Your task to perform on an android device: turn off improve location accuracy Image 0: 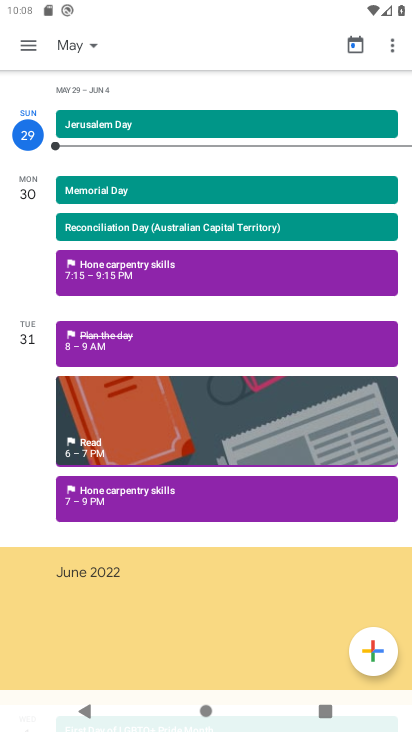
Step 0: drag from (253, 705) to (227, 195)
Your task to perform on an android device: turn off improve location accuracy Image 1: 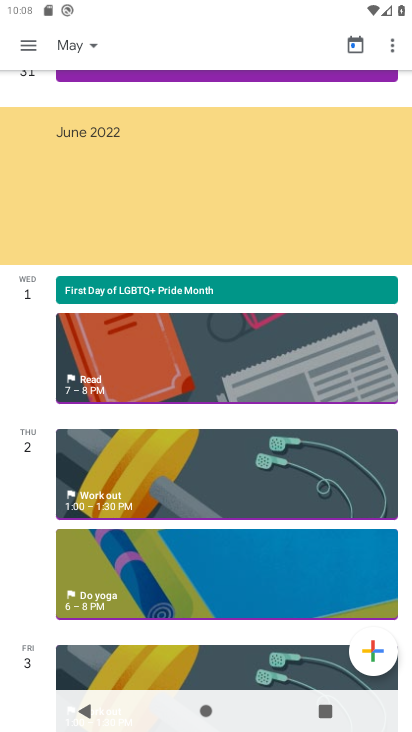
Step 1: press back button
Your task to perform on an android device: turn off improve location accuracy Image 2: 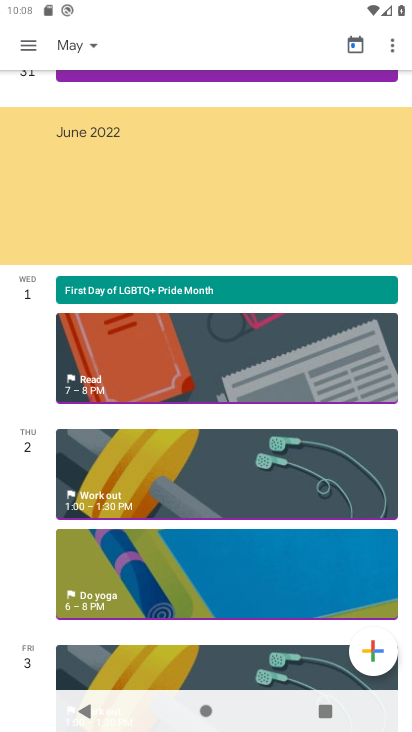
Step 2: press back button
Your task to perform on an android device: turn off improve location accuracy Image 3: 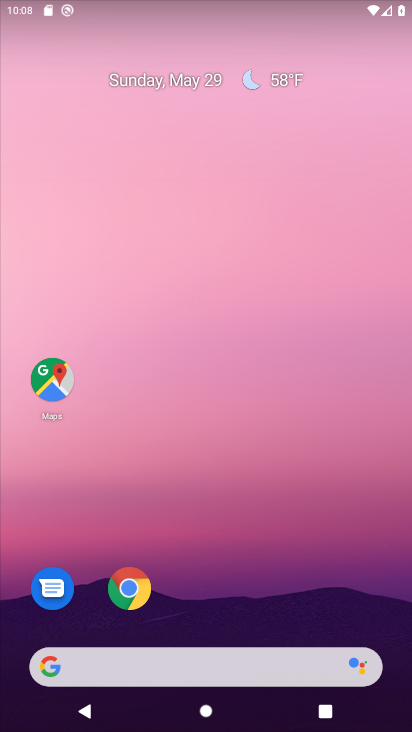
Step 3: drag from (276, 687) to (218, 243)
Your task to perform on an android device: turn off improve location accuracy Image 4: 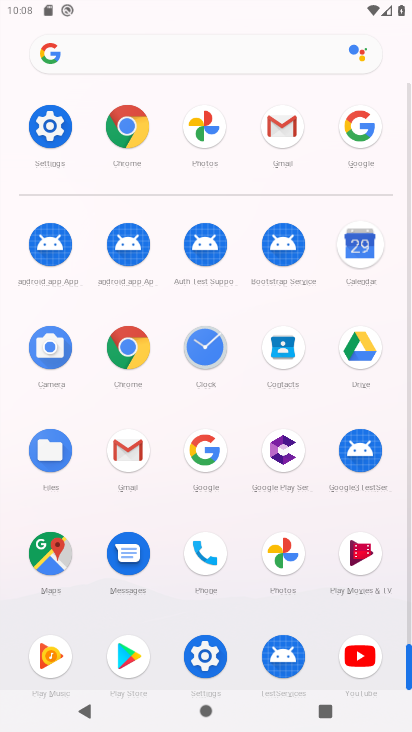
Step 4: click (49, 127)
Your task to perform on an android device: turn off improve location accuracy Image 5: 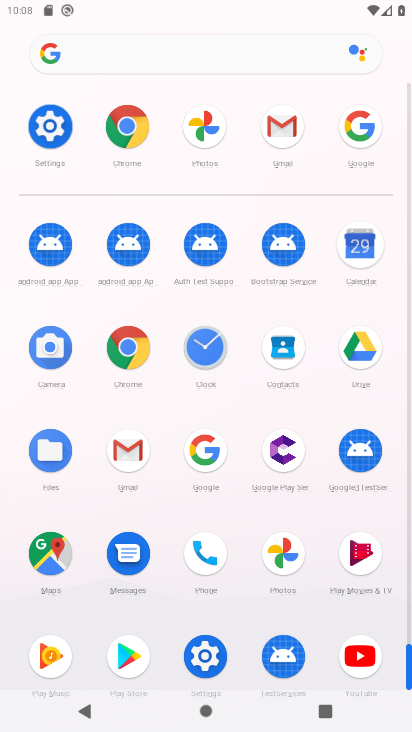
Step 5: click (63, 116)
Your task to perform on an android device: turn off improve location accuracy Image 6: 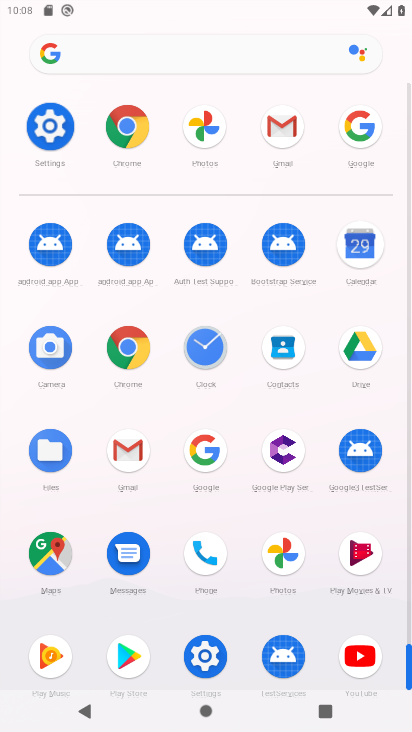
Step 6: click (63, 116)
Your task to perform on an android device: turn off improve location accuracy Image 7: 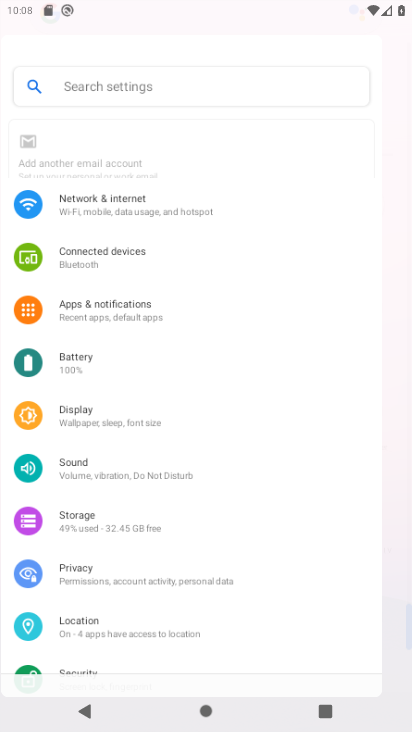
Step 7: click (63, 116)
Your task to perform on an android device: turn off improve location accuracy Image 8: 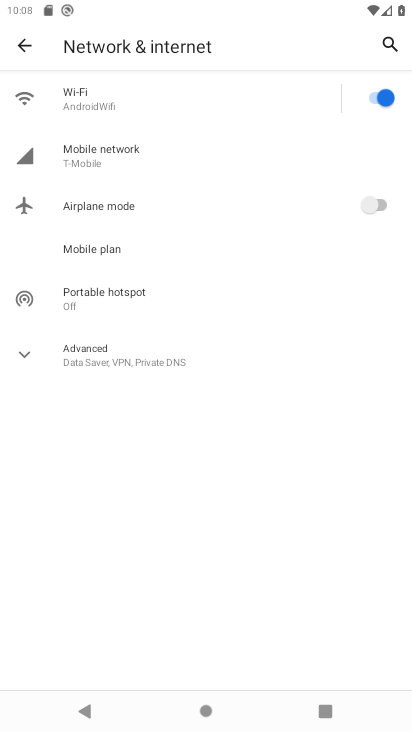
Step 8: click (17, 46)
Your task to perform on an android device: turn off improve location accuracy Image 9: 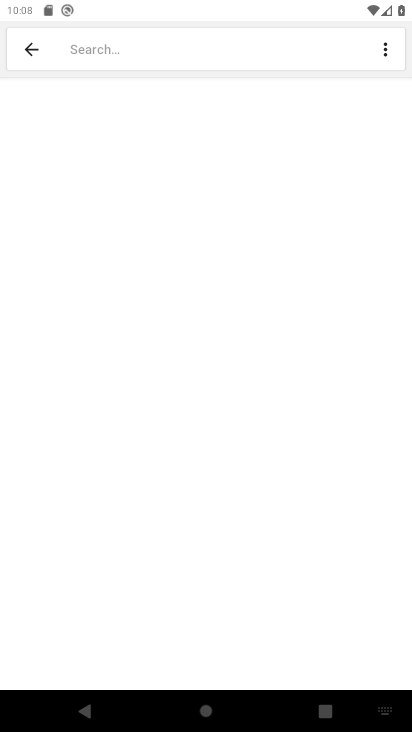
Step 9: click (29, 47)
Your task to perform on an android device: turn off improve location accuracy Image 10: 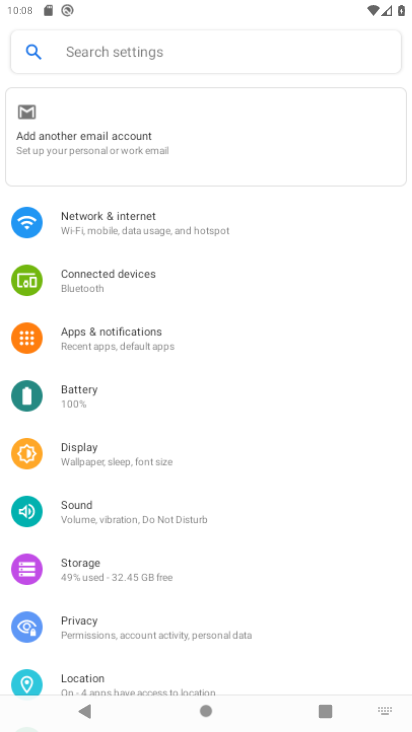
Step 10: click (31, 53)
Your task to perform on an android device: turn off improve location accuracy Image 11: 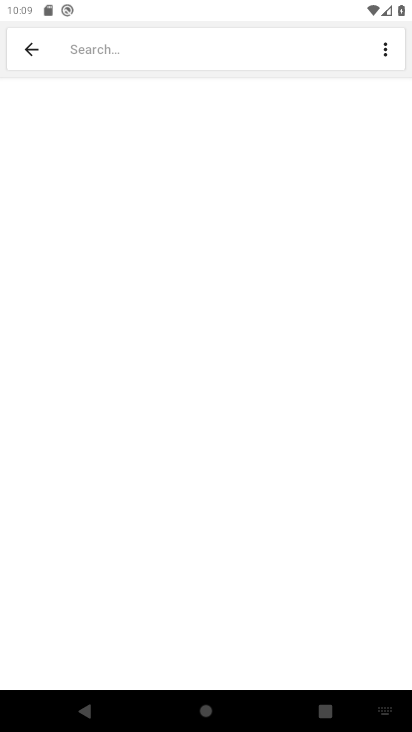
Step 11: click (38, 46)
Your task to perform on an android device: turn off improve location accuracy Image 12: 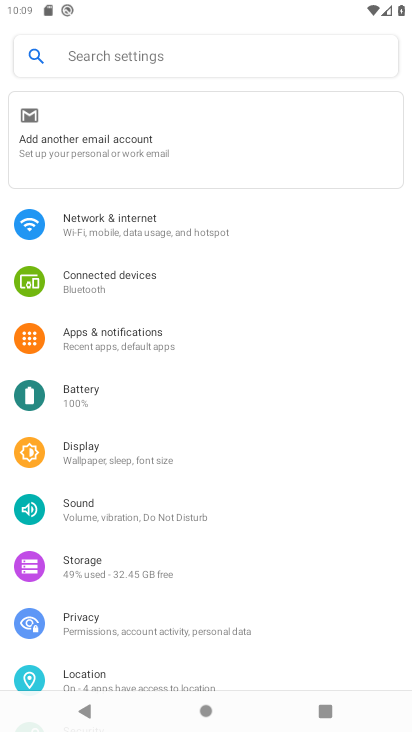
Step 12: click (88, 670)
Your task to perform on an android device: turn off improve location accuracy Image 13: 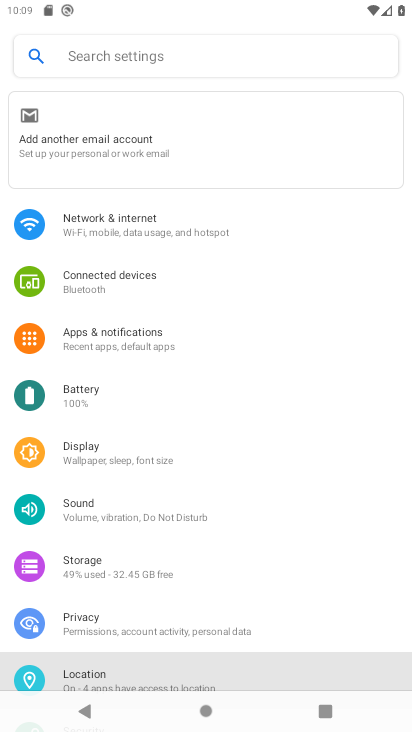
Step 13: click (88, 670)
Your task to perform on an android device: turn off improve location accuracy Image 14: 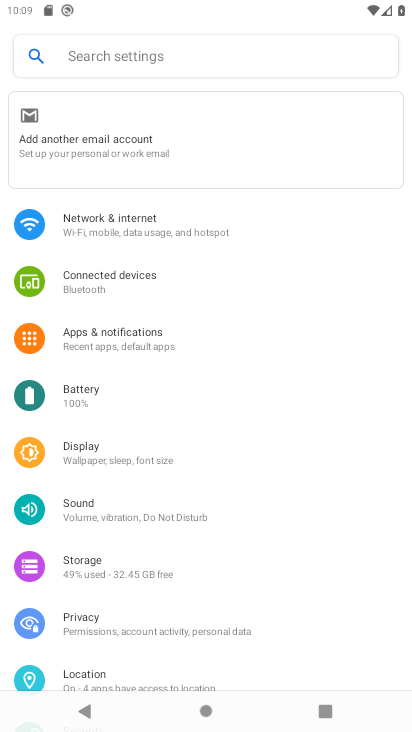
Step 14: click (88, 670)
Your task to perform on an android device: turn off improve location accuracy Image 15: 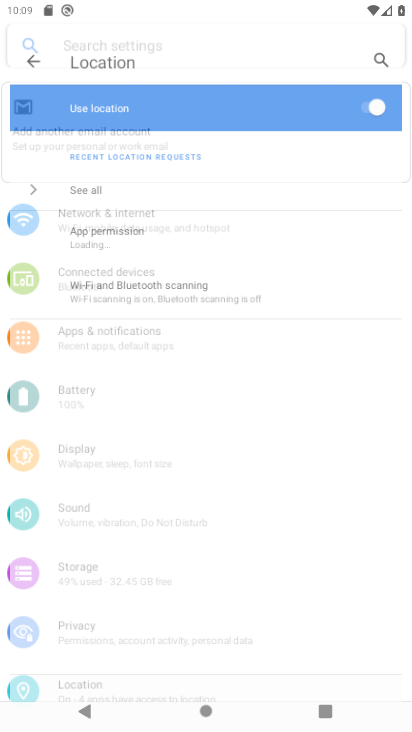
Step 15: click (88, 671)
Your task to perform on an android device: turn off improve location accuracy Image 16: 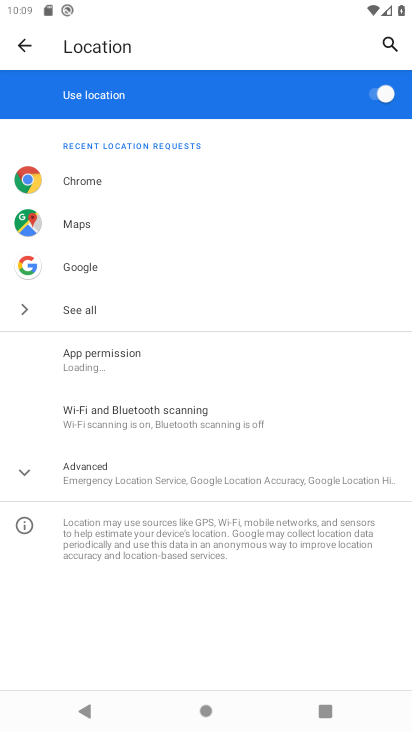
Step 16: click (99, 473)
Your task to perform on an android device: turn off improve location accuracy Image 17: 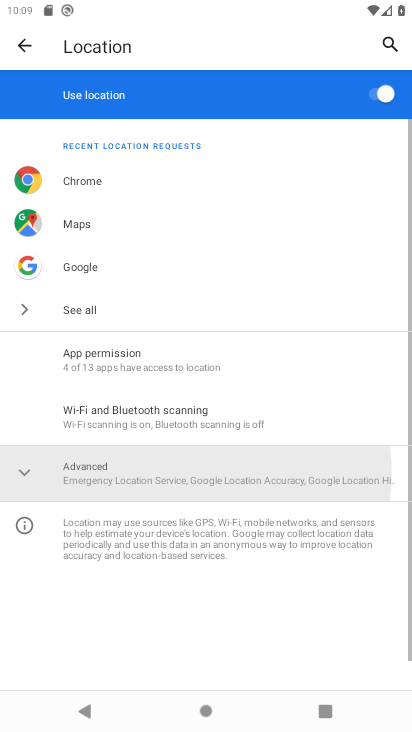
Step 17: click (99, 473)
Your task to perform on an android device: turn off improve location accuracy Image 18: 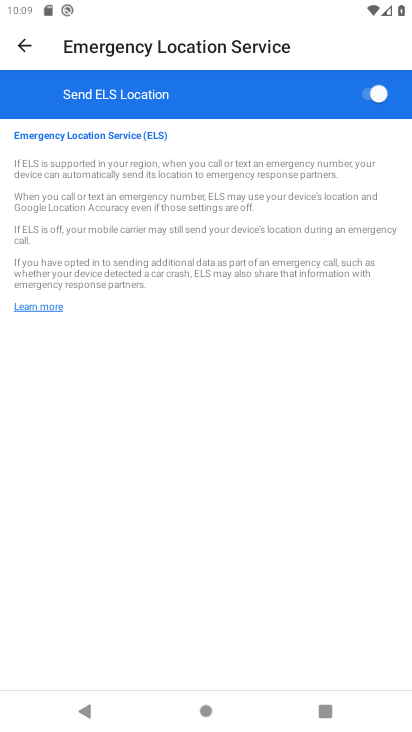
Step 18: click (23, 41)
Your task to perform on an android device: turn off improve location accuracy Image 19: 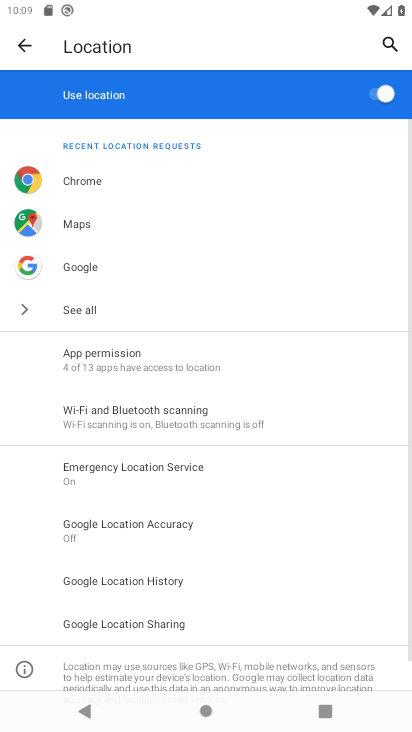
Step 19: click (148, 518)
Your task to perform on an android device: turn off improve location accuracy Image 20: 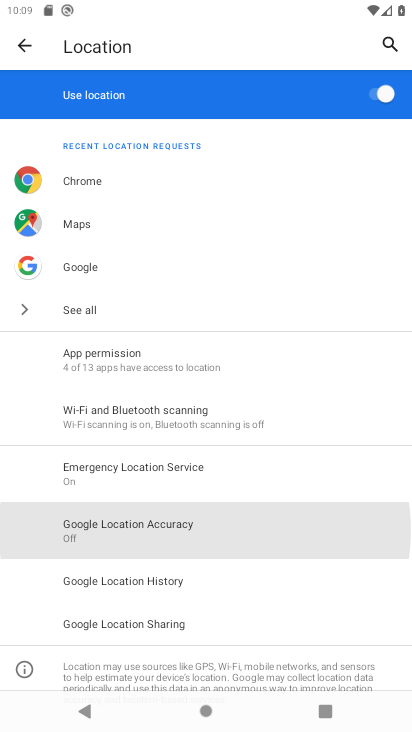
Step 20: click (153, 513)
Your task to perform on an android device: turn off improve location accuracy Image 21: 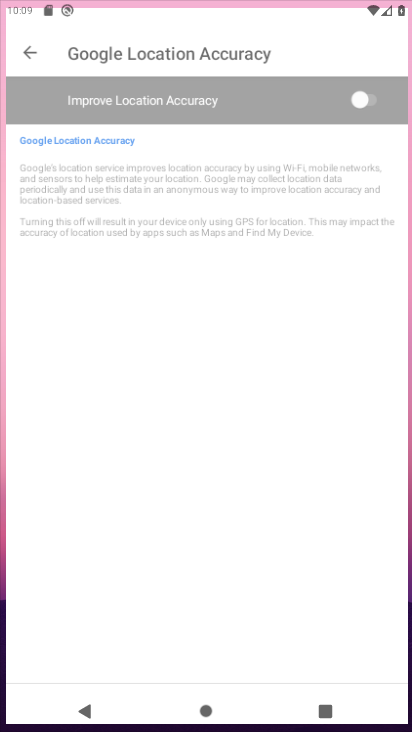
Step 21: click (153, 513)
Your task to perform on an android device: turn off improve location accuracy Image 22: 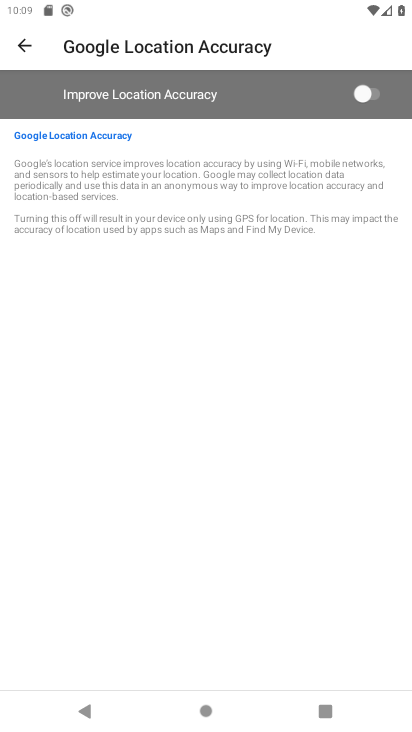
Step 22: task complete